Your task to perform on an android device: Go to Yahoo.com Image 0: 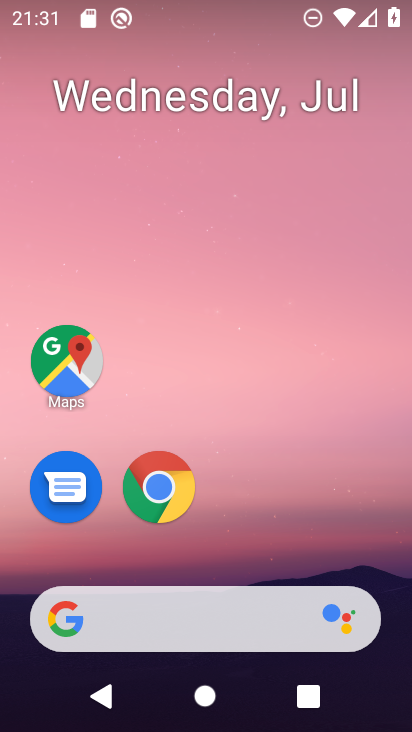
Step 0: drag from (345, 508) to (349, 139)
Your task to perform on an android device: Go to Yahoo.com Image 1: 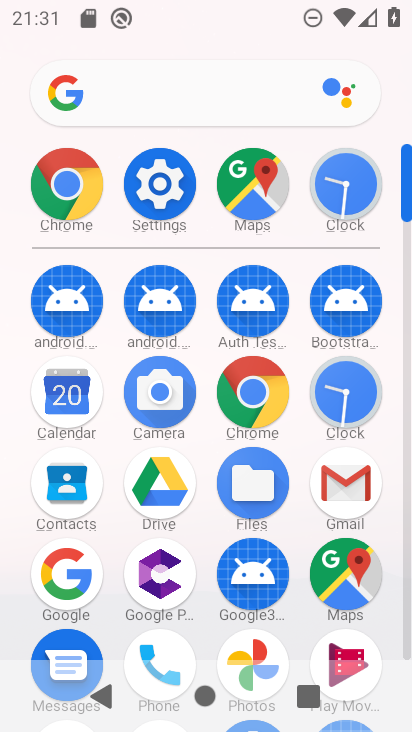
Step 1: click (268, 383)
Your task to perform on an android device: Go to Yahoo.com Image 2: 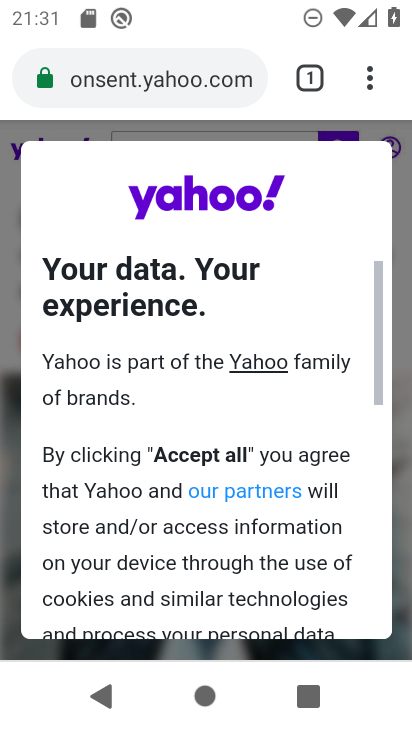
Step 2: click (190, 81)
Your task to perform on an android device: Go to Yahoo.com Image 3: 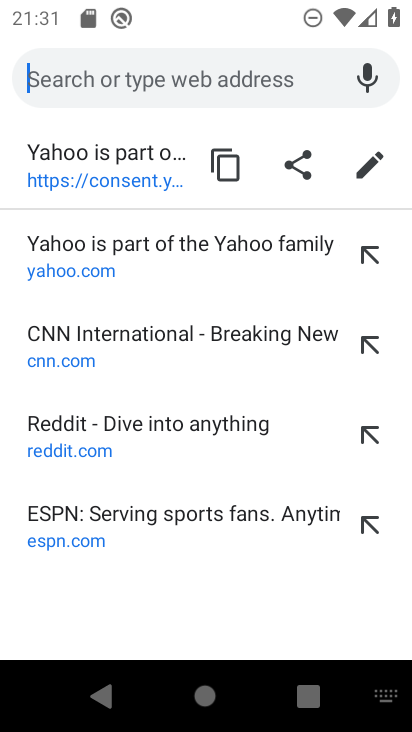
Step 3: type "yahoo.com"
Your task to perform on an android device: Go to Yahoo.com Image 4: 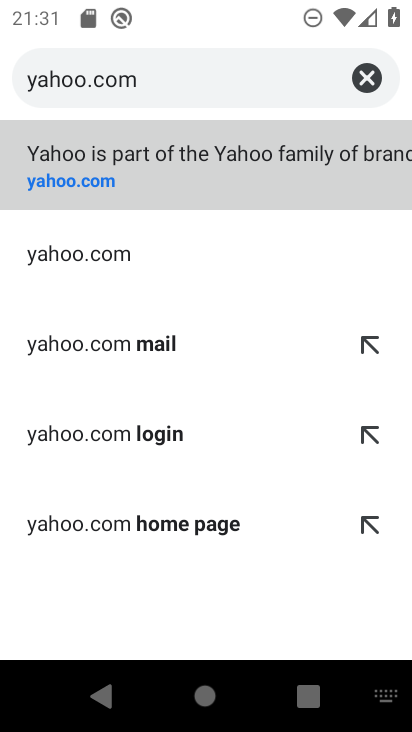
Step 4: click (132, 256)
Your task to perform on an android device: Go to Yahoo.com Image 5: 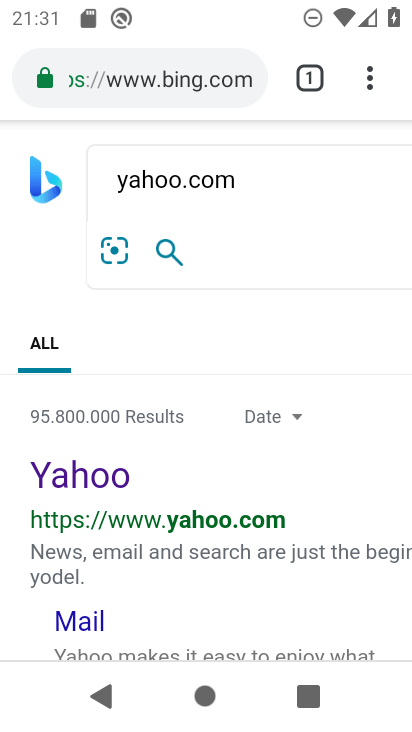
Step 5: task complete